Your task to perform on an android device: Open display settings Image 0: 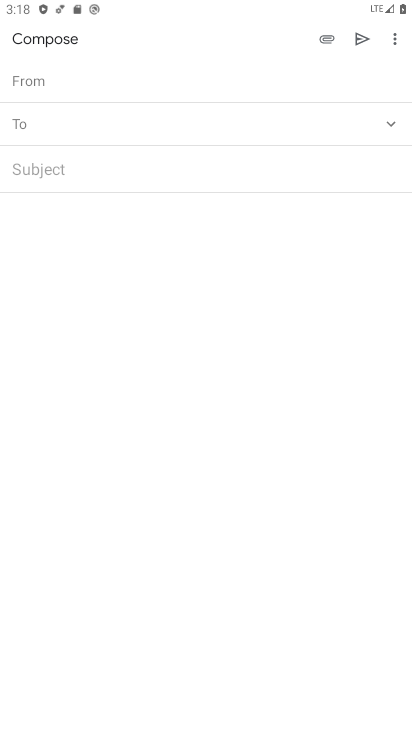
Step 0: drag from (189, 636) to (214, 349)
Your task to perform on an android device: Open display settings Image 1: 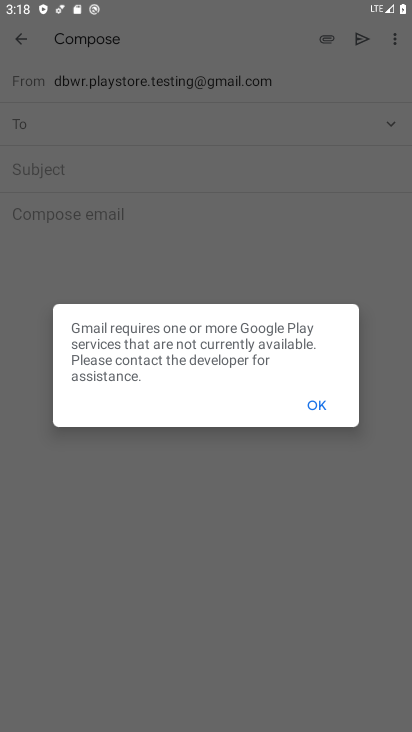
Step 1: click (315, 400)
Your task to perform on an android device: Open display settings Image 2: 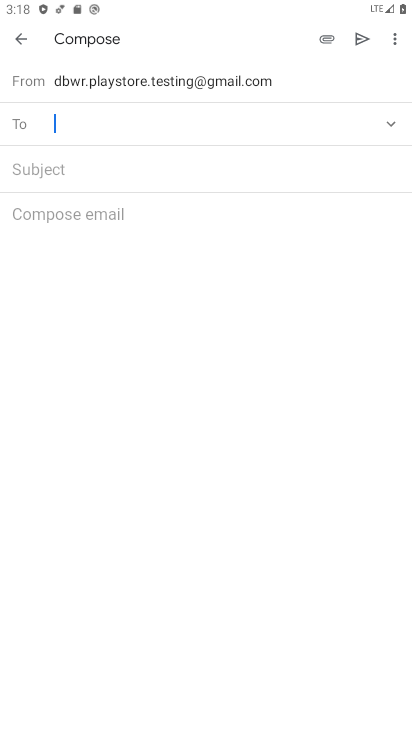
Step 2: press home button
Your task to perform on an android device: Open display settings Image 3: 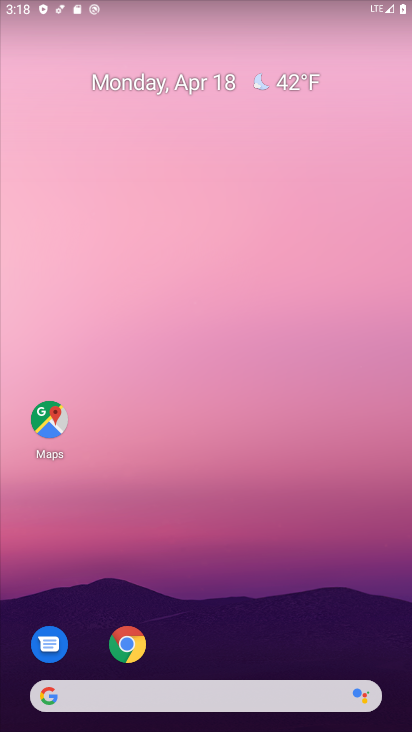
Step 3: drag from (210, 677) to (273, 101)
Your task to perform on an android device: Open display settings Image 4: 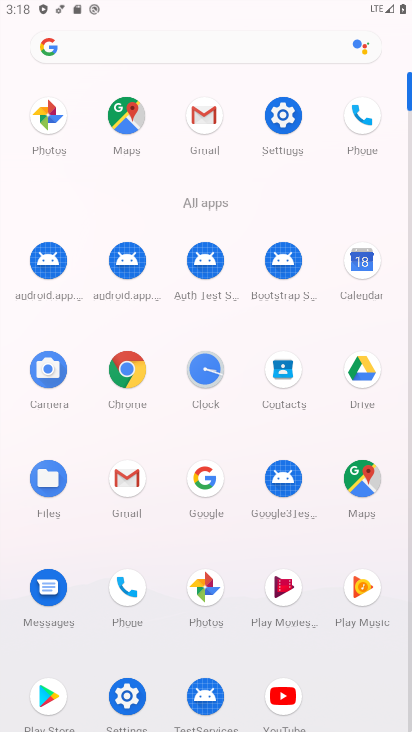
Step 4: click (281, 107)
Your task to perform on an android device: Open display settings Image 5: 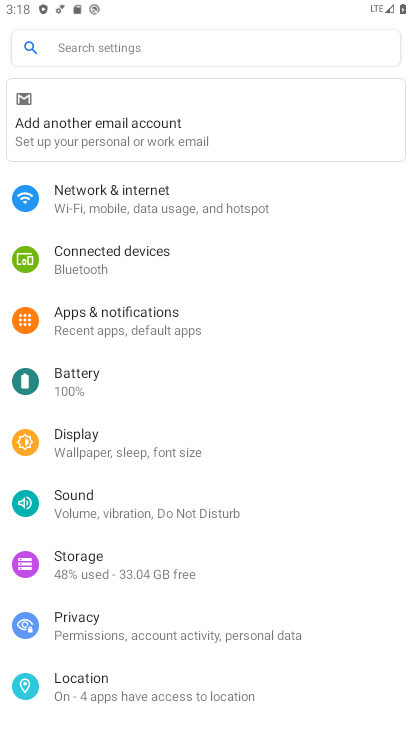
Step 5: click (102, 436)
Your task to perform on an android device: Open display settings Image 6: 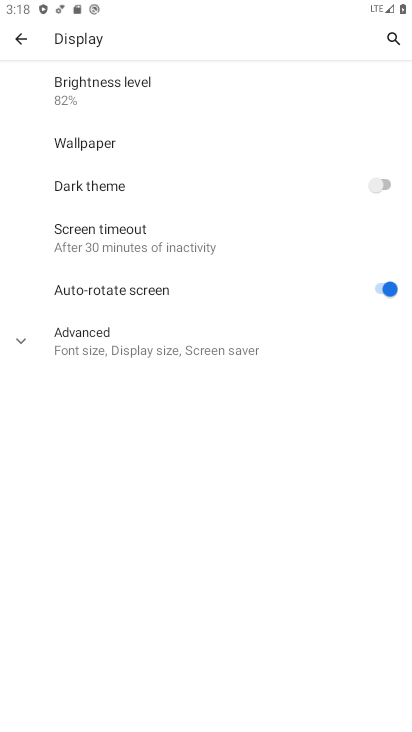
Step 6: click (90, 343)
Your task to perform on an android device: Open display settings Image 7: 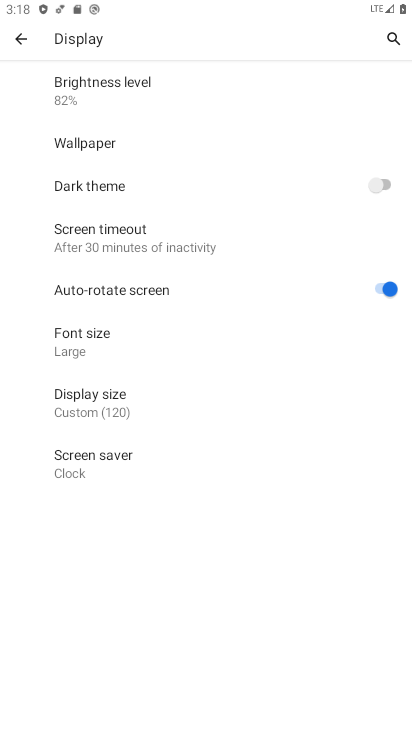
Step 7: task complete